Your task to perform on an android device: allow cookies in the chrome app Image 0: 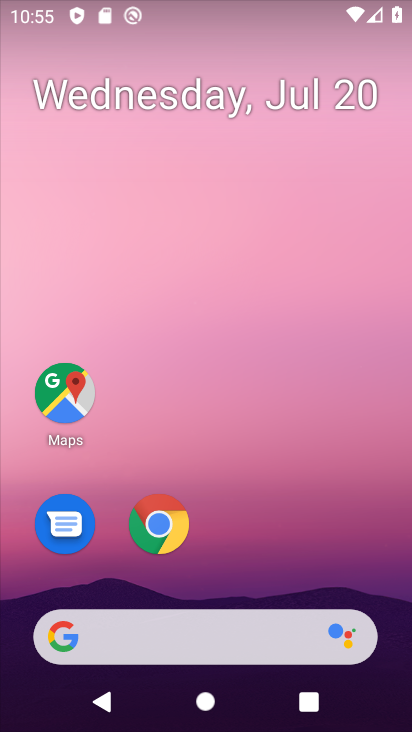
Step 0: click (171, 539)
Your task to perform on an android device: allow cookies in the chrome app Image 1: 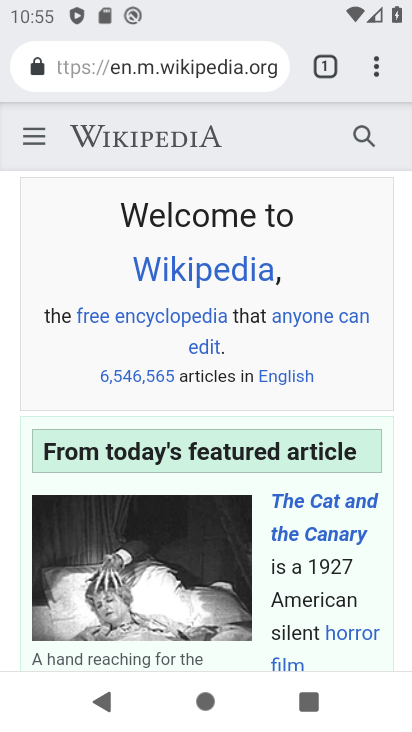
Step 1: click (373, 64)
Your task to perform on an android device: allow cookies in the chrome app Image 2: 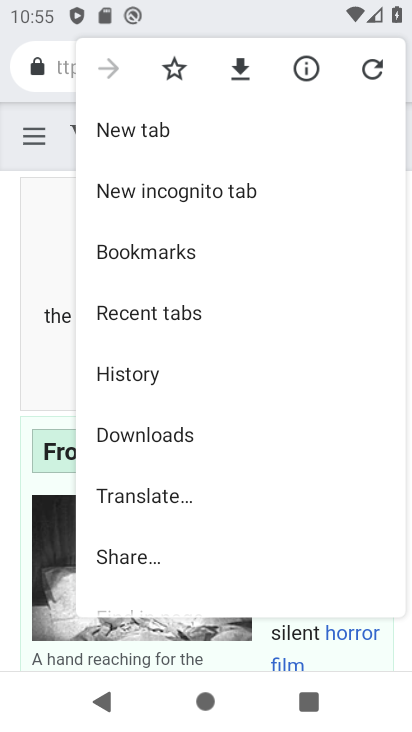
Step 2: drag from (244, 470) to (264, 114)
Your task to perform on an android device: allow cookies in the chrome app Image 3: 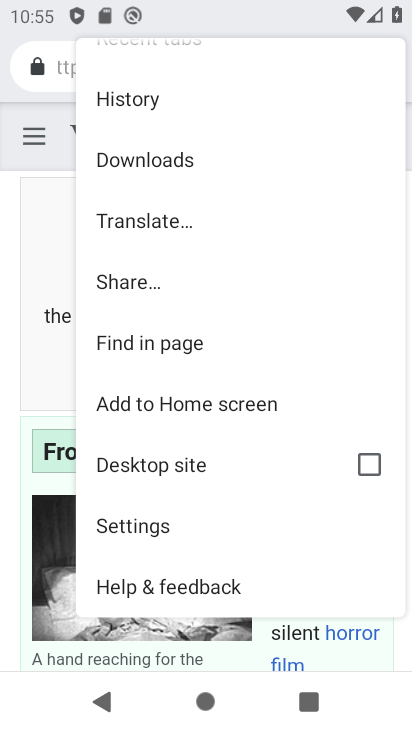
Step 3: click (169, 519)
Your task to perform on an android device: allow cookies in the chrome app Image 4: 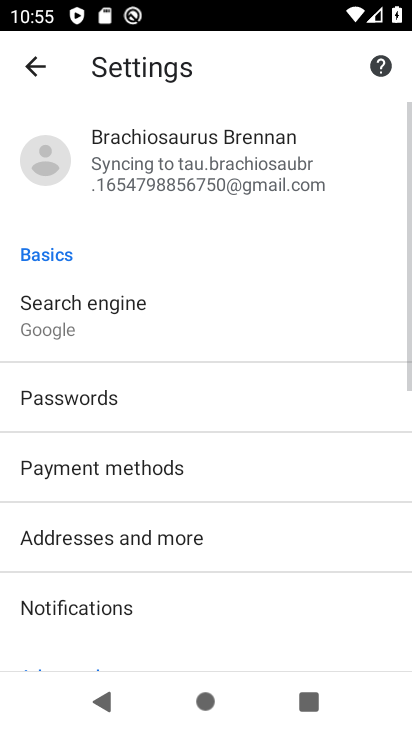
Step 4: drag from (258, 420) to (305, 35)
Your task to perform on an android device: allow cookies in the chrome app Image 5: 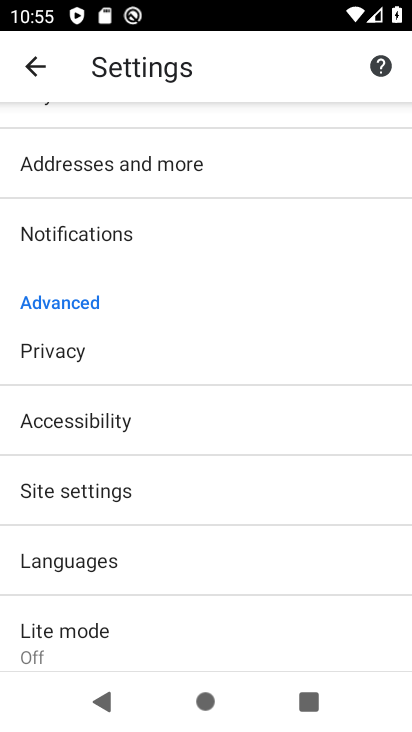
Step 5: drag from (236, 549) to (237, 298)
Your task to perform on an android device: allow cookies in the chrome app Image 6: 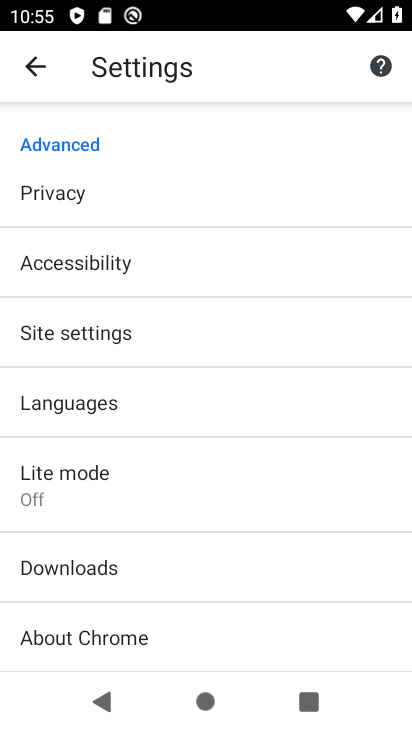
Step 6: click (112, 326)
Your task to perform on an android device: allow cookies in the chrome app Image 7: 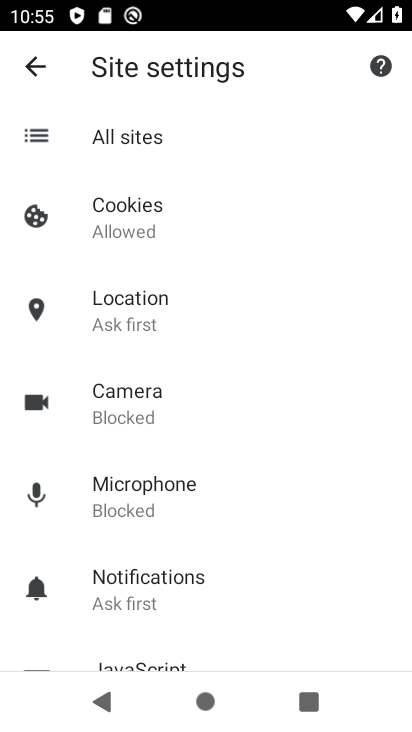
Step 7: click (165, 205)
Your task to perform on an android device: allow cookies in the chrome app Image 8: 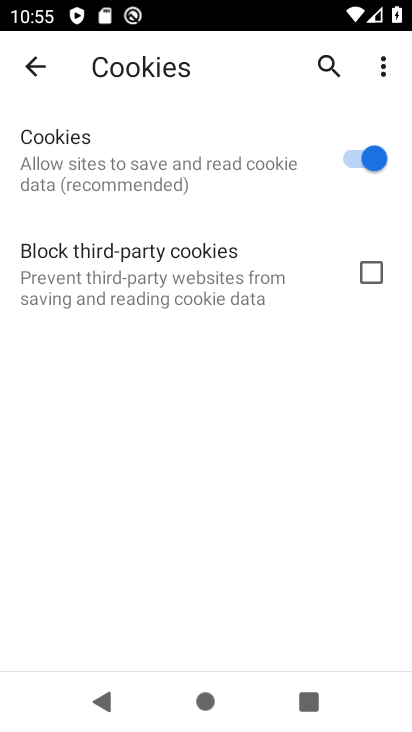
Step 8: task complete